Your task to perform on an android device: Open Wikipedia Image 0: 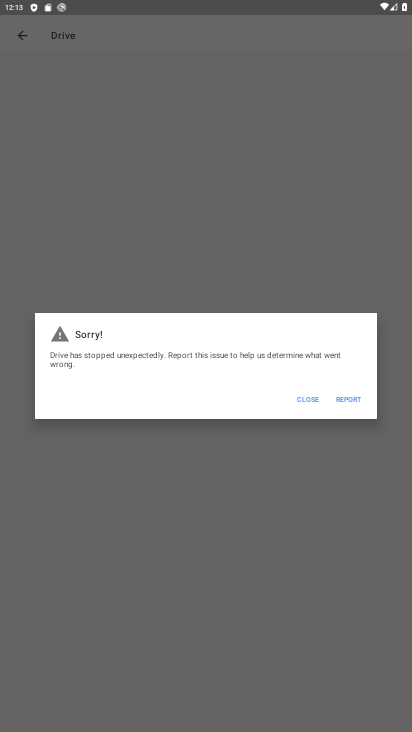
Step 0: press home button
Your task to perform on an android device: Open Wikipedia Image 1: 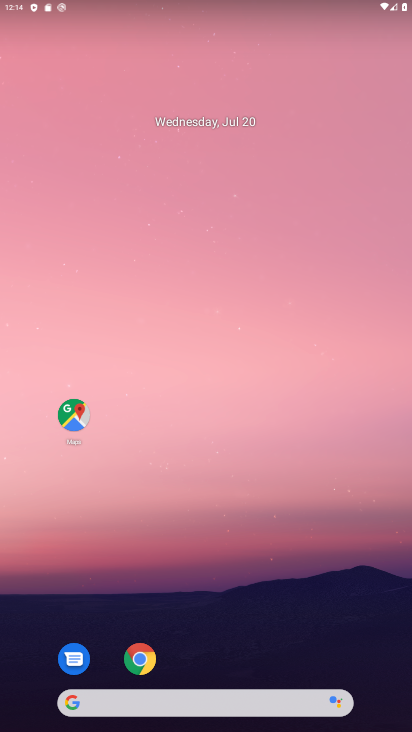
Step 1: drag from (362, 595) to (195, 0)
Your task to perform on an android device: Open Wikipedia Image 2: 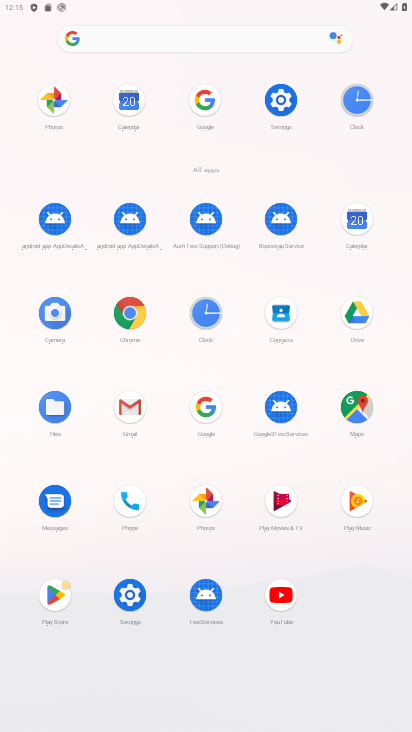
Step 2: click (210, 424)
Your task to perform on an android device: Open Wikipedia Image 3: 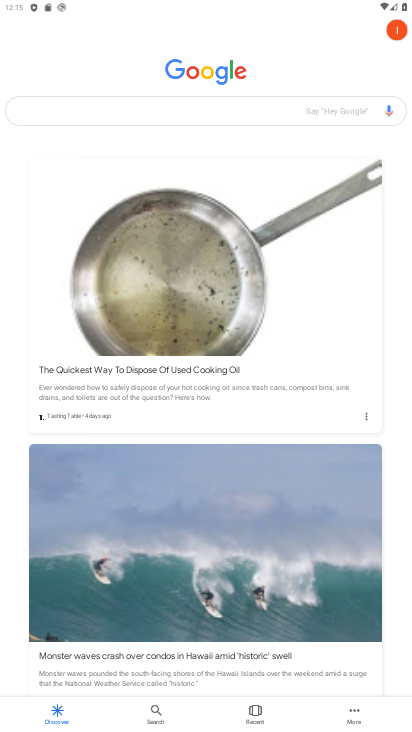
Step 3: click (144, 113)
Your task to perform on an android device: Open Wikipedia Image 4: 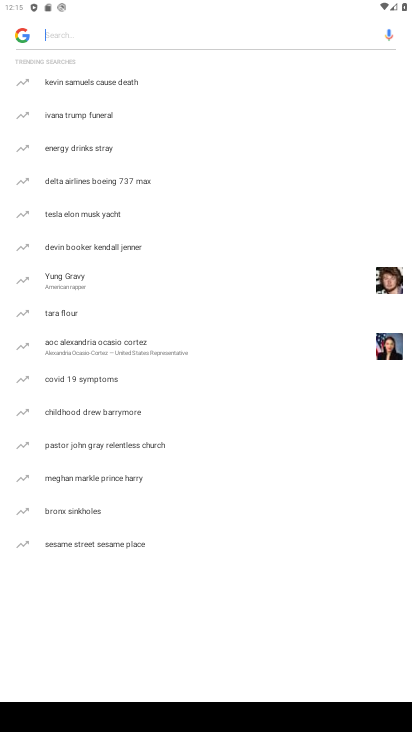
Step 4: type "Wikipedia"
Your task to perform on an android device: Open Wikipedia Image 5: 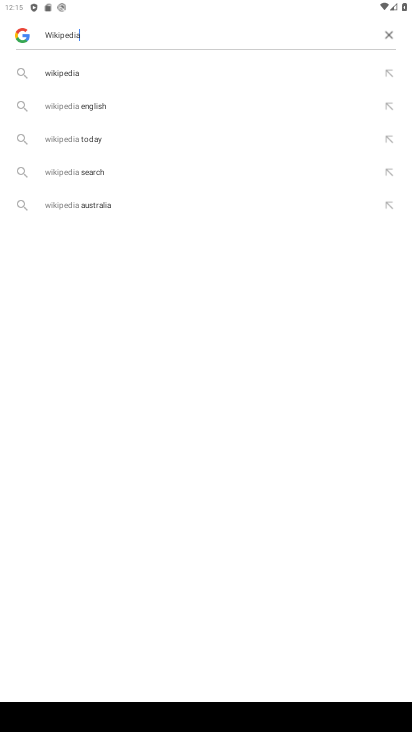
Step 5: click (71, 83)
Your task to perform on an android device: Open Wikipedia Image 6: 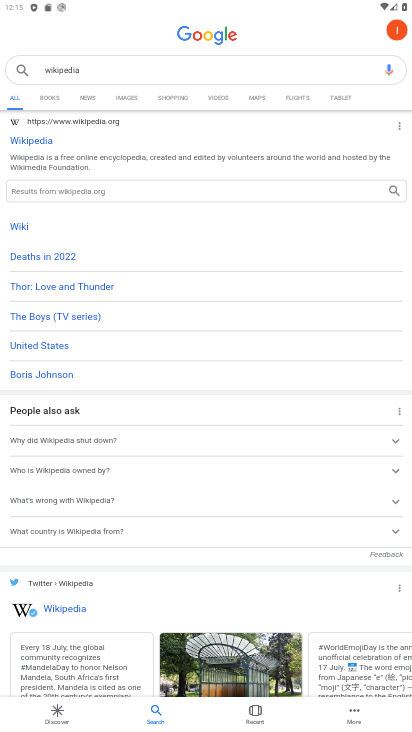
Step 6: task complete